Your task to perform on an android device: Open Yahoo.com Image 0: 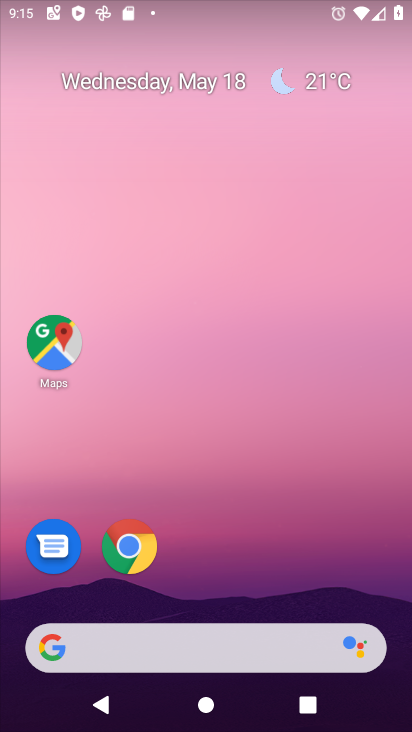
Step 0: click (131, 544)
Your task to perform on an android device: Open Yahoo.com Image 1: 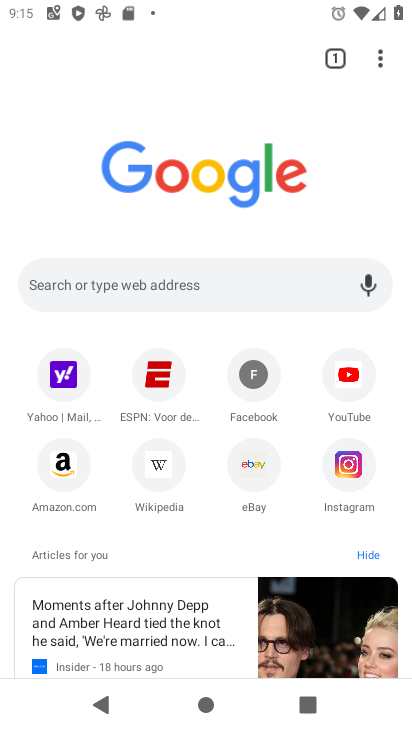
Step 1: click (67, 378)
Your task to perform on an android device: Open Yahoo.com Image 2: 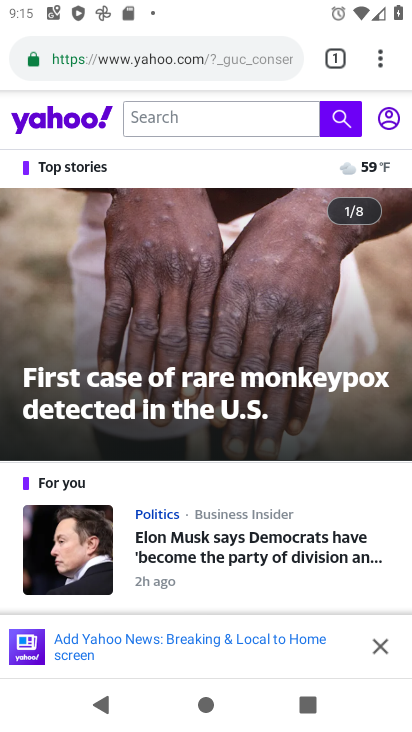
Step 2: task complete